Your task to perform on an android device: Open Google Chrome and open the bookmarks view Image 0: 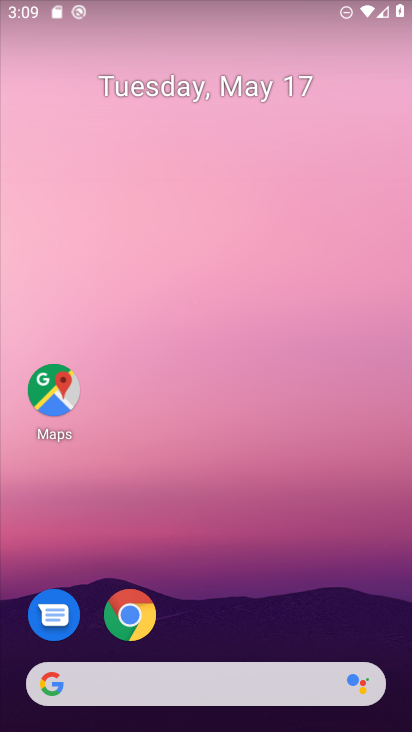
Step 0: click (127, 623)
Your task to perform on an android device: Open Google Chrome and open the bookmarks view Image 1: 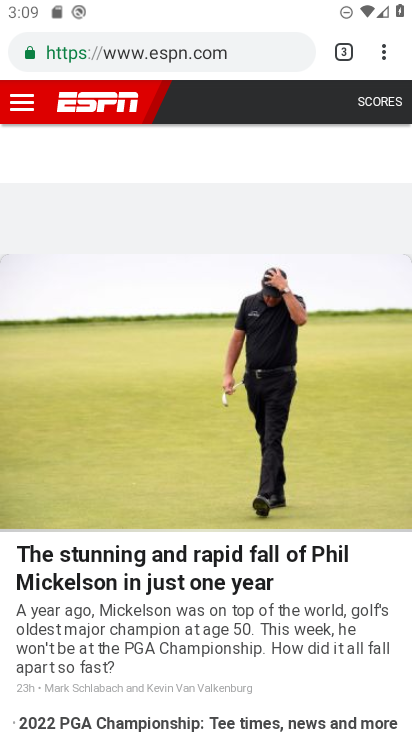
Step 1: click (386, 59)
Your task to perform on an android device: Open Google Chrome and open the bookmarks view Image 2: 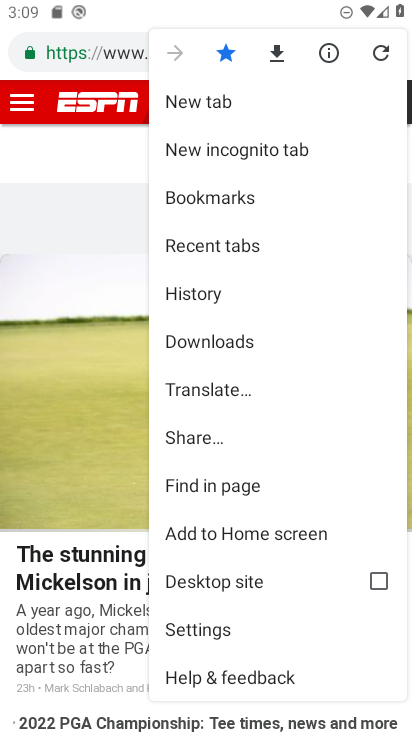
Step 2: click (225, 194)
Your task to perform on an android device: Open Google Chrome and open the bookmarks view Image 3: 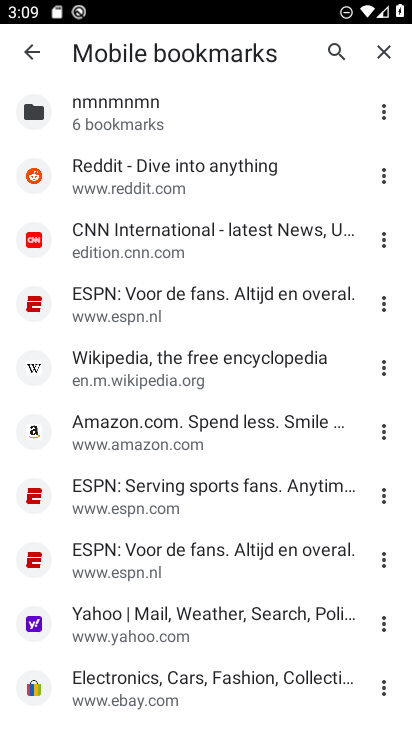
Step 3: task complete